Your task to perform on an android device: Empty the shopping cart on walmart.com. Add "bose quietcomfort 35" to the cart on walmart.com, then select checkout. Image 0: 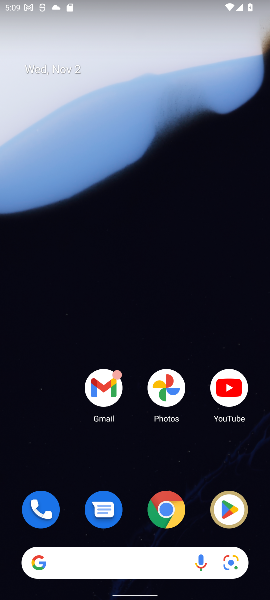
Step 0: press home button
Your task to perform on an android device: Empty the shopping cart on walmart.com. Add "bose quietcomfort 35" to the cart on walmart.com, then select checkout. Image 1: 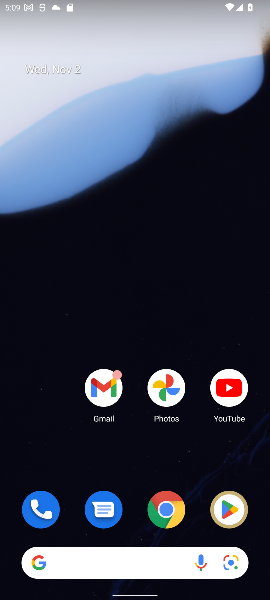
Step 1: click (97, 563)
Your task to perform on an android device: Empty the shopping cart on walmart.com. Add "bose quietcomfort 35" to the cart on walmart.com, then select checkout. Image 2: 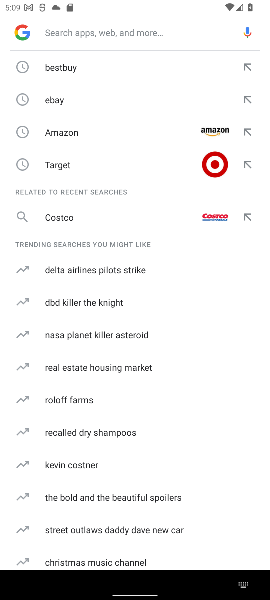
Step 2: type "walmart"
Your task to perform on an android device: Empty the shopping cart on walmart.com. Add "bose quietcomfort 35" to the cart on walmart.com, then select checkout. Image 3: 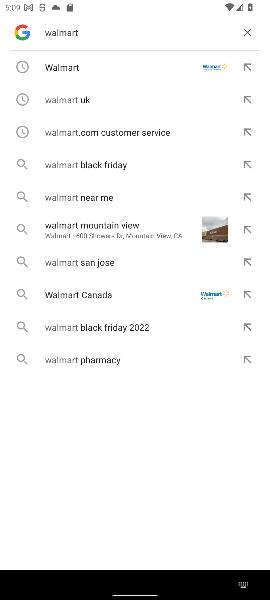
Step 3: click (64, 67)
Your task to perform on an android device: Empty the shopping cart on walmart.com. Add "bose quietcomfort 35" to the cart on walmart.com, then select checkout. Image 4: 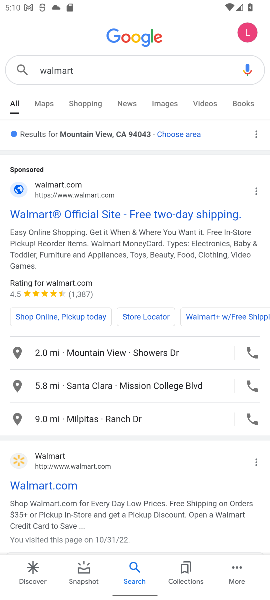
Step 4: click (42, 486)
Your task to perform on an android device: Empty the shopping cart on walmart.com. Add "bose quietcomfort 35" to the cart on walmart.com, then select checkout. Image 5: 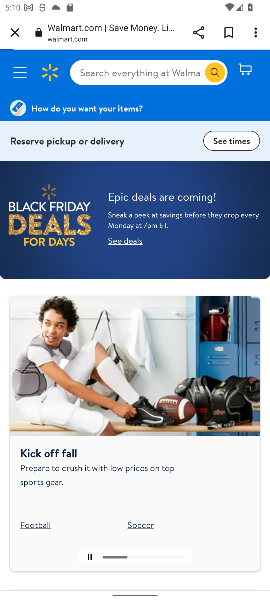
Step 5: click (129, 66)
Your task to perform on an android device: Empty the shopping cart on walmart.com. Add "bose quietcomfort 35" to the cart on walmart.com, then select checkout. Image 6: 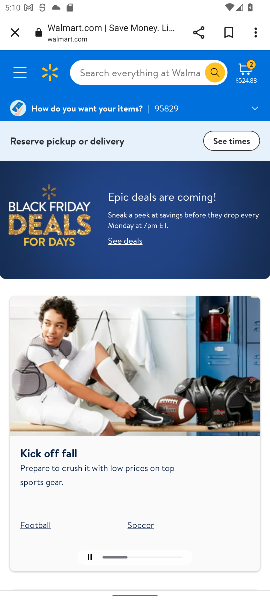
Step 6: click (246, 69)
Your task to perform on an android device: Empty the shopping cart on walmart.com. Add "bose quietcomfort 35" to the cart on walmart.com, then select checkout. Image 7: 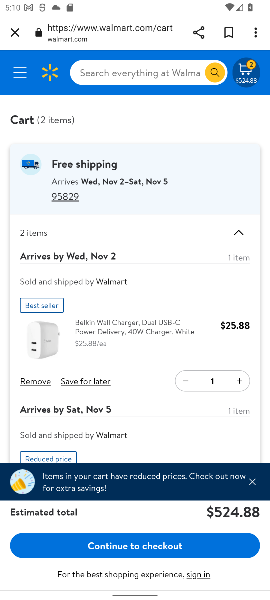
Step 7: click (254, 485)
Your task to perform on an android device: Empty the shopping cart on walmart.com. Add "bose quietcomfort 35" to the cart on walmart.com, then select checkout. Image 8: 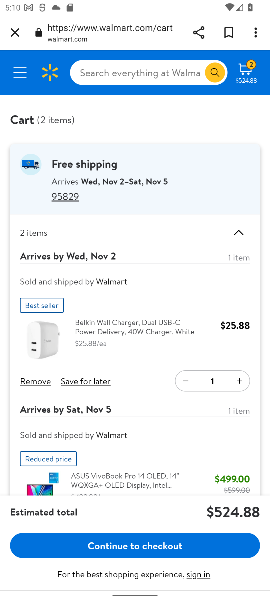
Step 8: click (41, 378)
Your task to perform on an android device: Empty the shopping cart on walmart.com. Add "bose quietcomfort 35" to the cart on walmart.com, then select checkout. Image 9: 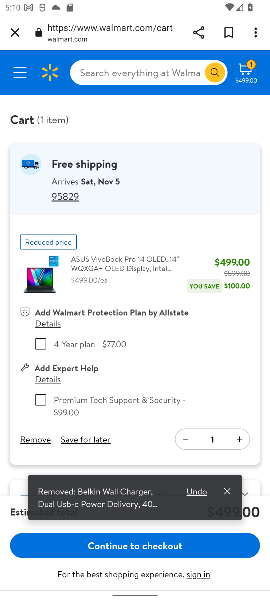
Step 9: click (27, 440)
Your task to perform on an android device: Empty the shopping cart on walmart.com. Add "bose quietcomfort 35" to the cart on walmart.com, then select checkout. Image 10: 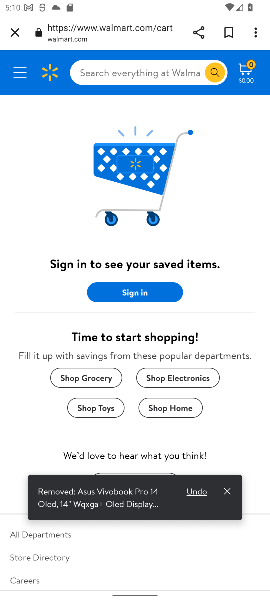
Step 10: click (136, 72)
Your task to perform on an android device: Empty the shopping cart on walmart.com. Add "bose quietcomfort 35" to the cart on walmart.com, then select checkout. Image 11: 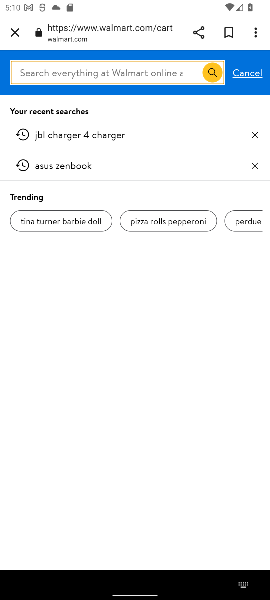
Step 11: type "bose quietcomfort 35"
Your task to perform on an android device: Empty the shopping cart on walmart.com. Add "bose quietcomfort 35" to the cart on walmart.com, then select checkout. Image 12: 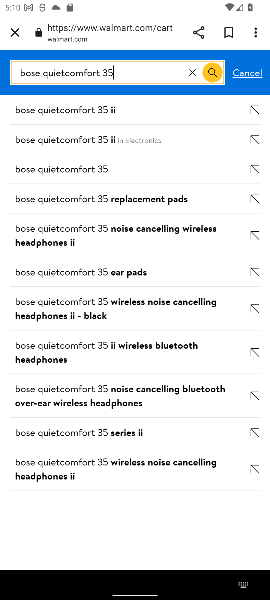
Step 12: click (208, 71)
Your task to perform on an android device: Empty the shopping cart on walmart.com. Add "bose quietcomfort 35" to the cart on walmart.com, then select checkout. Image 13: 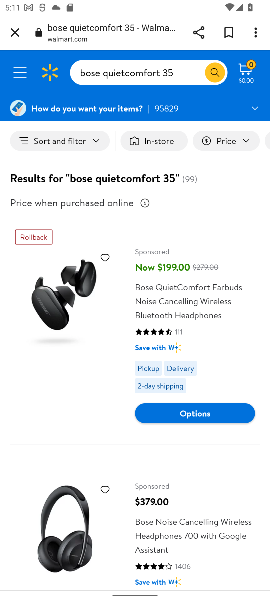
Step 13: click (184, 423)
Your task to perform on an android device: Empty the shopping cart on walmart.com. Add "bose quietcomfort 35" to the cart on walmart.com, then select checkout. Image 14: 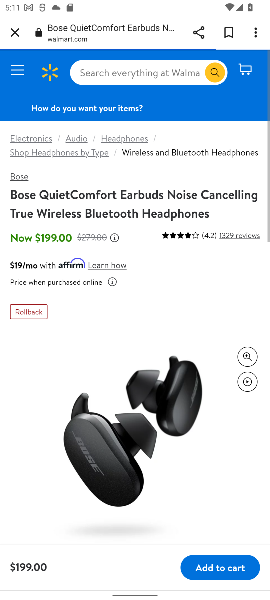
Step 14: click (199, 417)
Your task to perform on an android device: Empty the shopping cart on walmart.com. Add "bose quietcomfort 35" to the cart on walmart.com, then select checkout. Image 15: 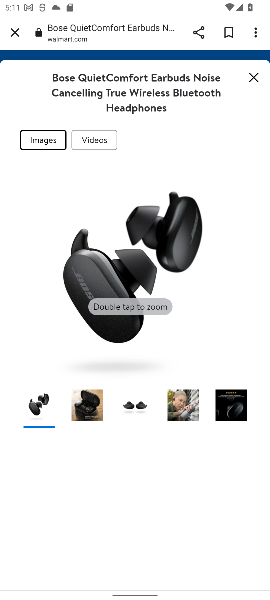
Step 15: click (255, 79)
Your task to perform on an android device: Empty the shopping cart on walmart.com. Add "bose quietcomfort 35" to the cart on walmart.com, then select checkout. Image 16: 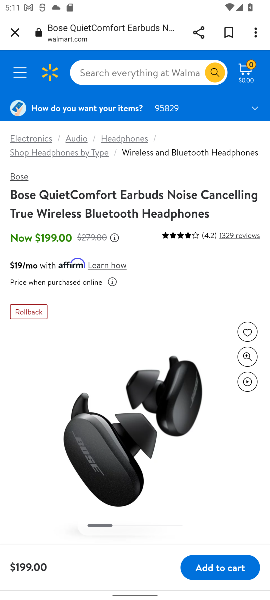
Step 16: click (210, 569)
Your task to perform on an android device: Empty the shopping cart on walmart.com. Add "bose quietcomfort 35" to the cart on walmart.com, then select checkout. Image 17: 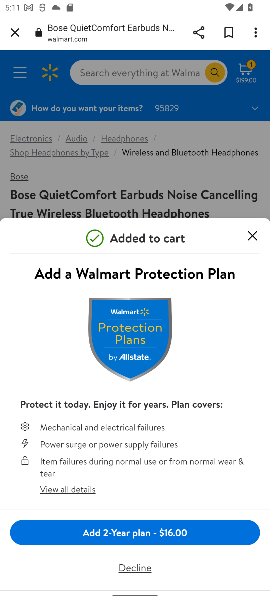
Step 17: click (250, 239)
Your task to perform on an android device: Empty the shopping cart on walmart.com. Add "bose quietcomfort 35" to the cart on walmart.com, then select checkout. Image 18: 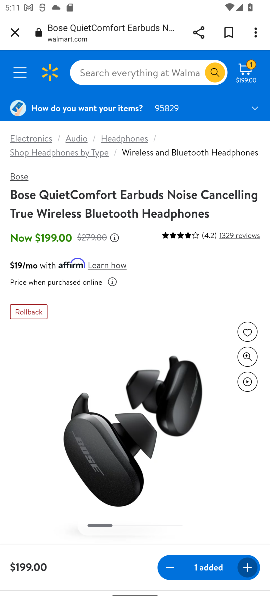
Step 18: click (251, 68)
Your task to perform on an android device: Empty the shopping cart on walmart.com. Add "bose quietcomfort 35" to the cart on walmart.com, then select checkout. Image 19: 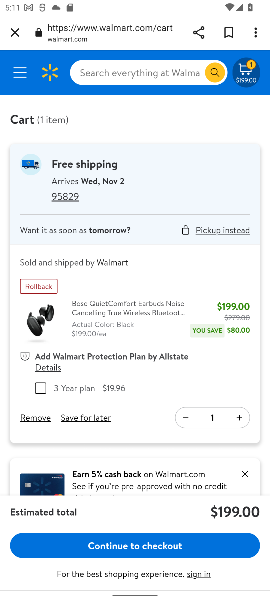
Step 19: click (132, 553)
Your task to perform on an android device: Empty the shopping cart on walmart.com. Add "bose quietcomfort 35" to the cart on walmart.com, then select checkout. Image 20: 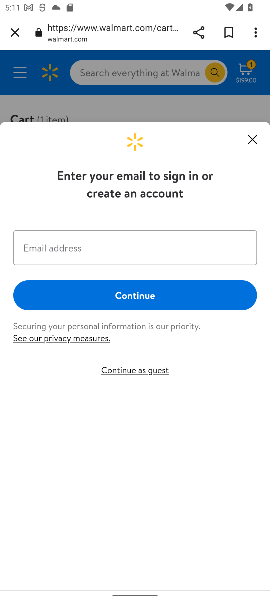
Step 20: task complete